Your task to perform on an android device: Go to network settings Image 0: 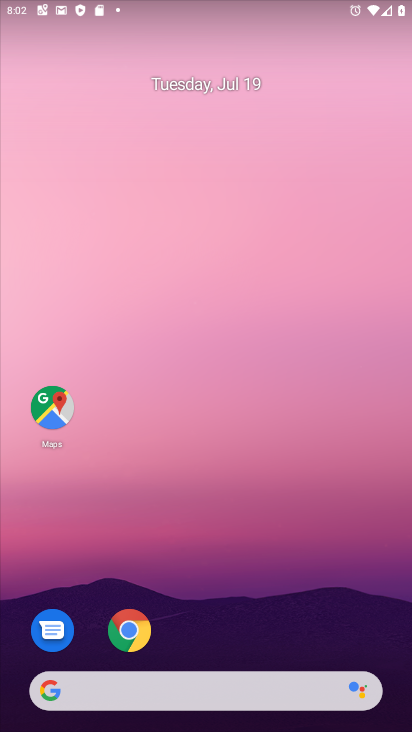
Step 0: drag from (196, 630) to (192, 98)
Your task to perform on an android device: Go to network settings Image 1: 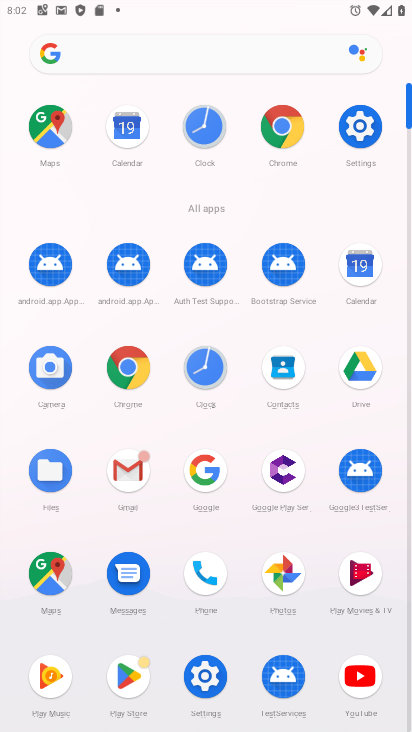
Step 1: click (360, 131)
Your task to perform on an android device: Go to network settings Image 2: 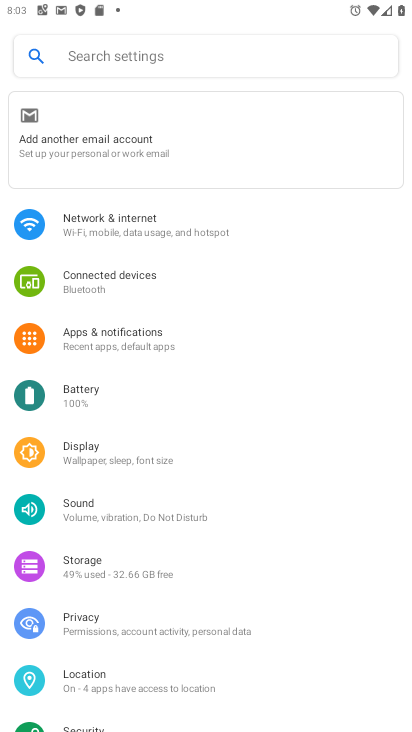
Step 2: click (106, 234)
Your task to perform on an android device: Go to network settings Image 3: 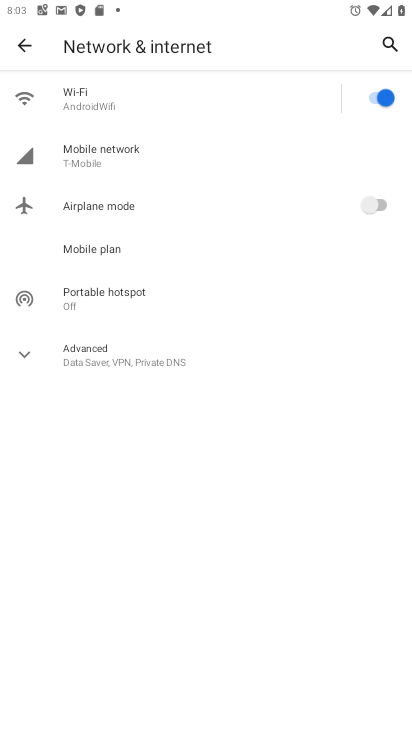
Step 3: task complete